Your task to perform on an android device: Search for 35 best books of all time Image 0: 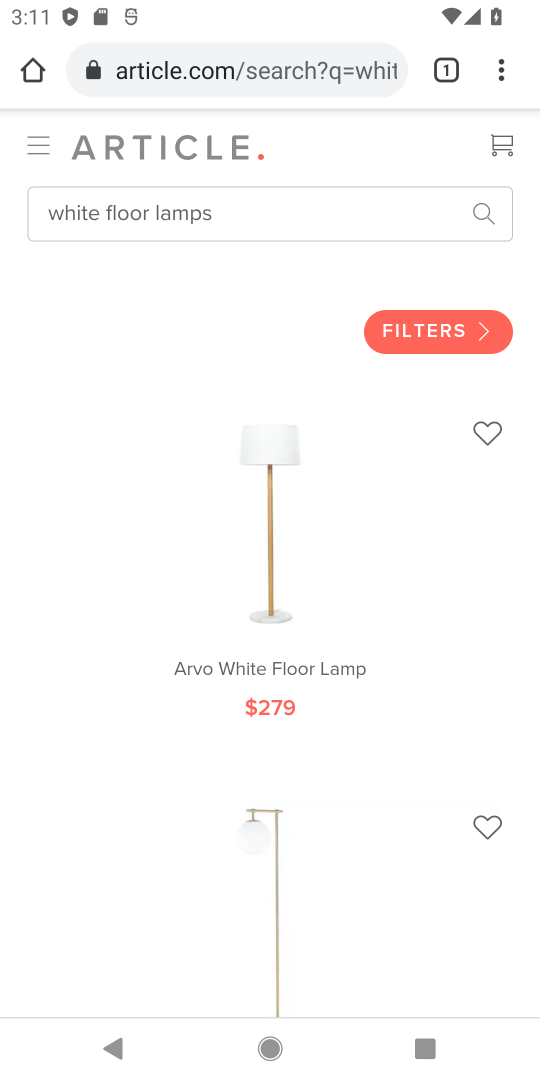
Step 0: press home button
Your task to perform on an android device: Search for 35 best books of all time Image 1: 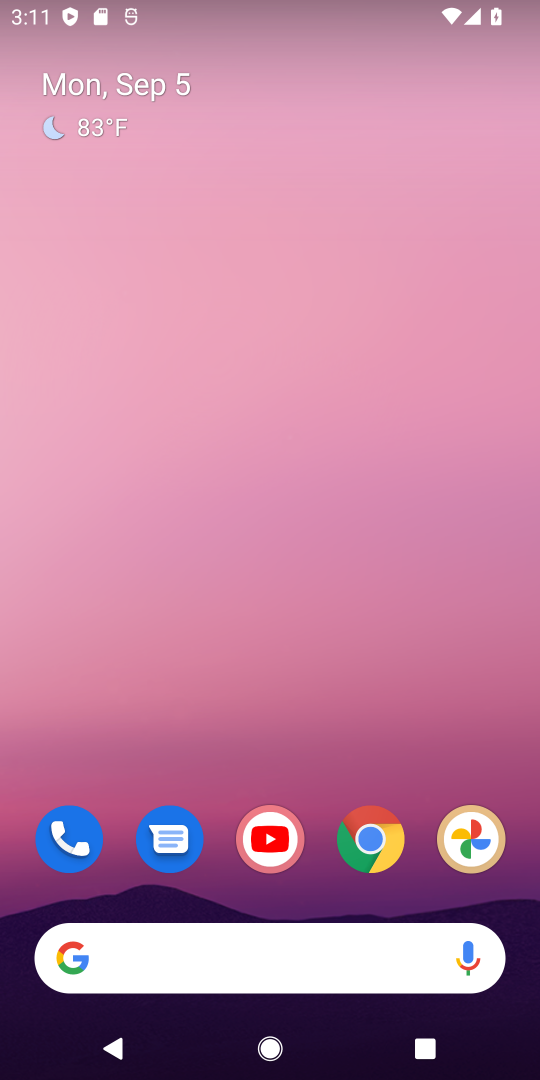
Step 1: click (369, 836)
Your task to perform on an android device: Search for 35 best books of all time Image 2: 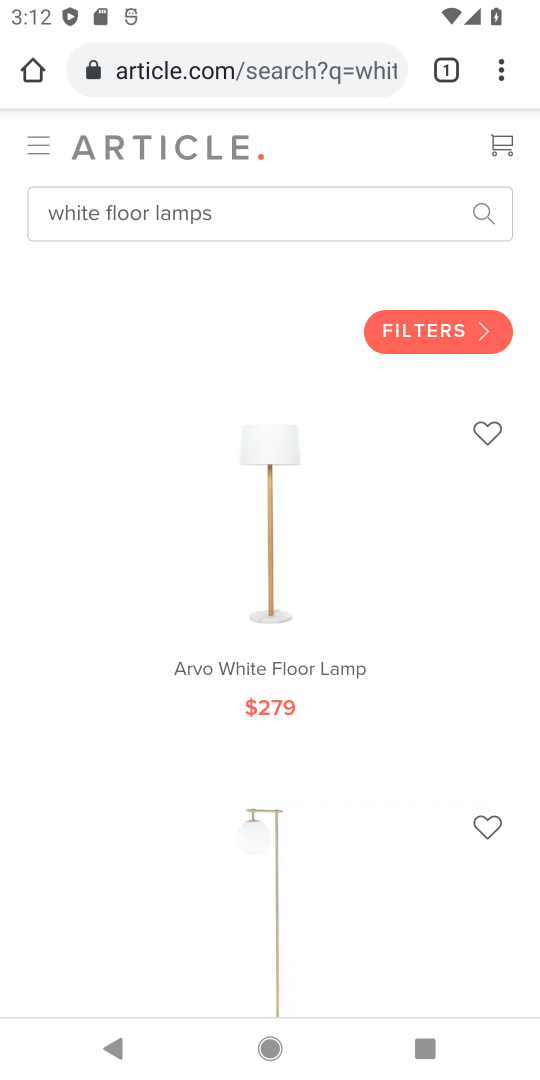
Step 2: click (314, 68)
Your task to perform on an android device: Search for 35 best books of all time Image 3: 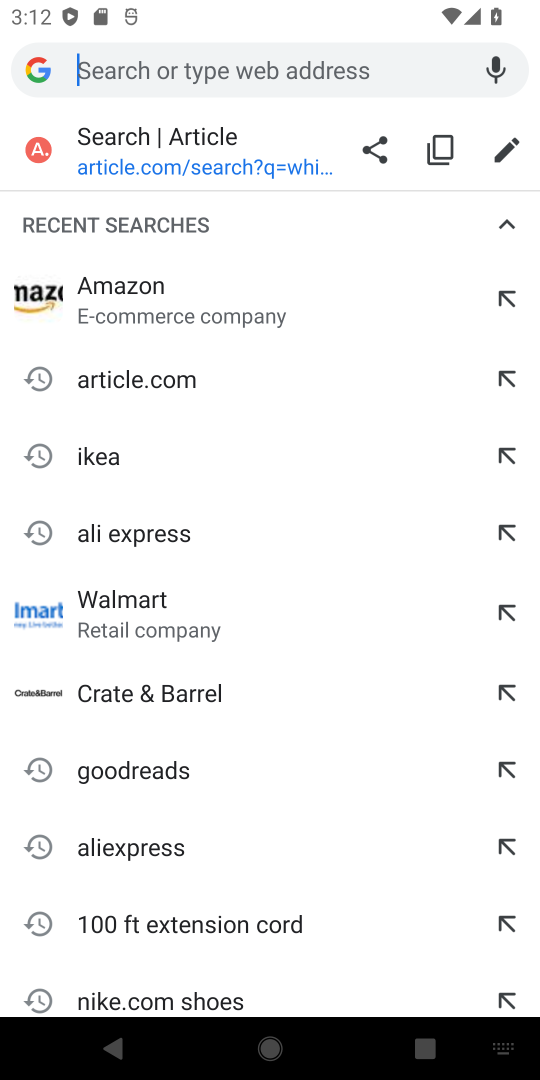
Step 3: type "35 best books of all time"
Your task to perform on an android device: Search for 35 best books of all time Image 4: 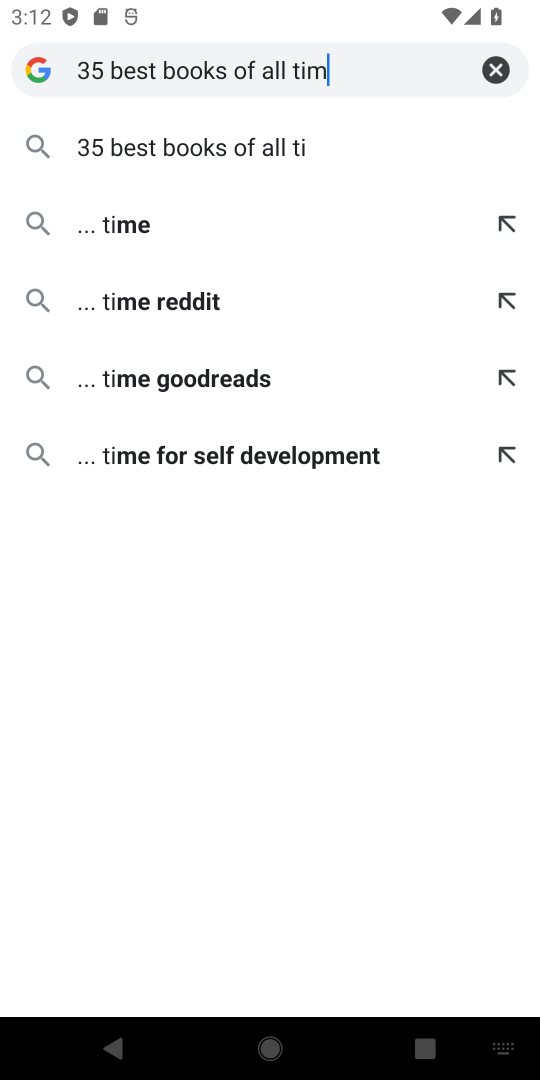
Step 4: click (360, 67)
Your task to perform on an android device: Search for 35 best books of all time Image 5: 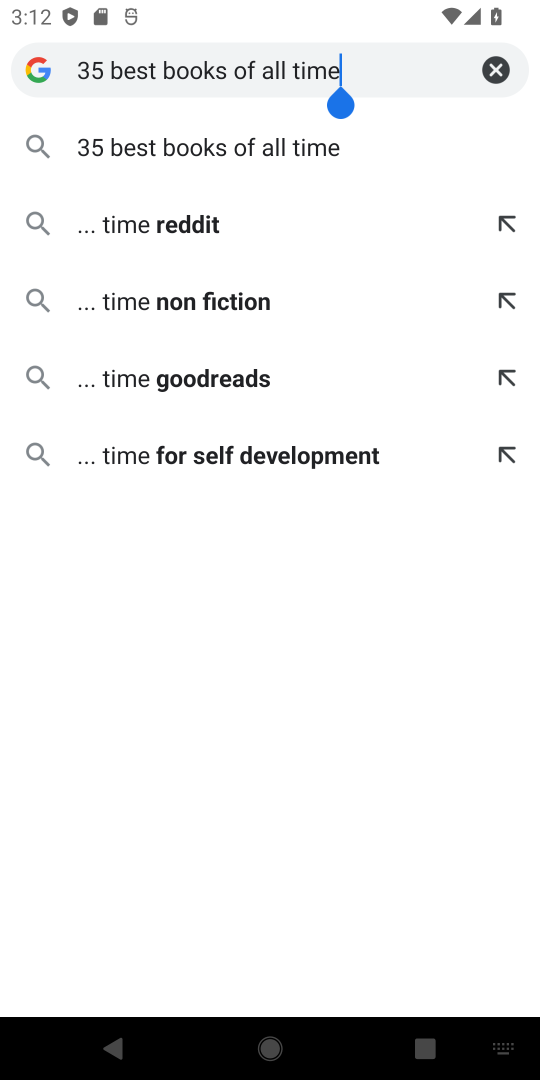
Step 5: click (204, 166)
Your task to perform on an android device: Search for 35 best books of all time Image 6: 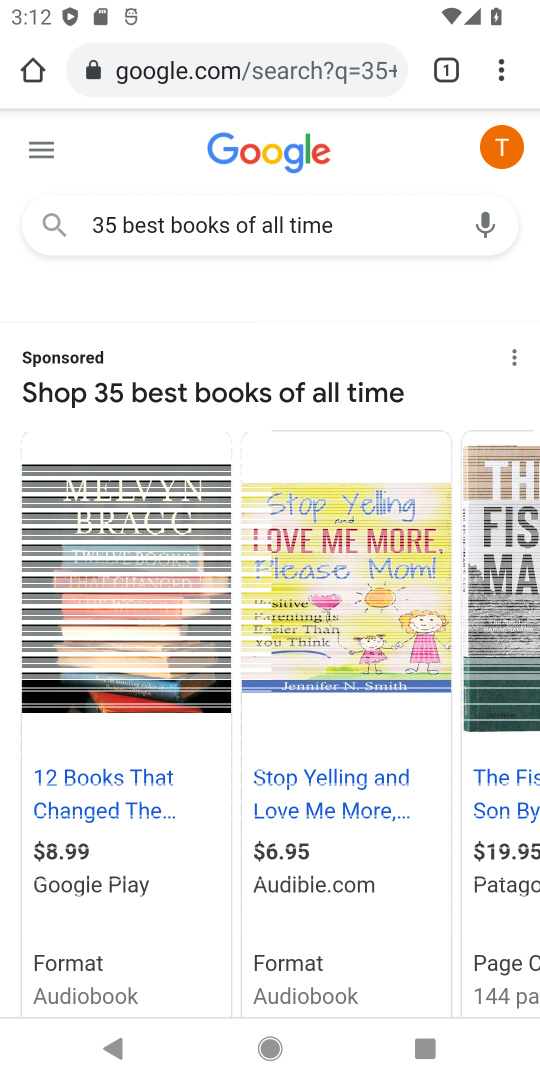
Step 6: task complete